Your task to perform on an android device: delete the emails in spam in the gmail app Image 0: 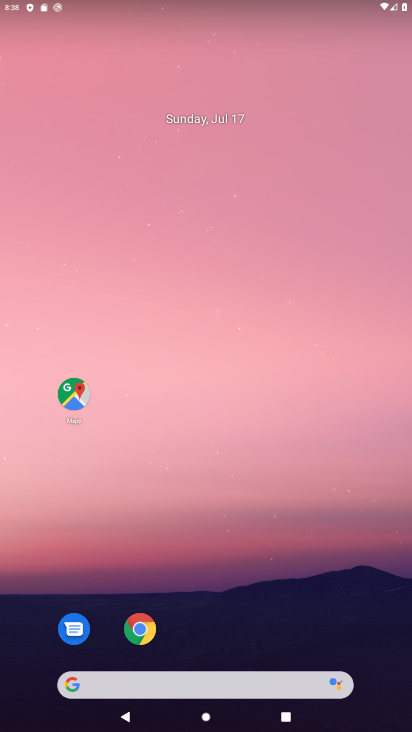
Step 0: drag from (230, 622) to (306, 0)
Your task to perform on an android device: delete the emails in spam in the gmail app Image 1: 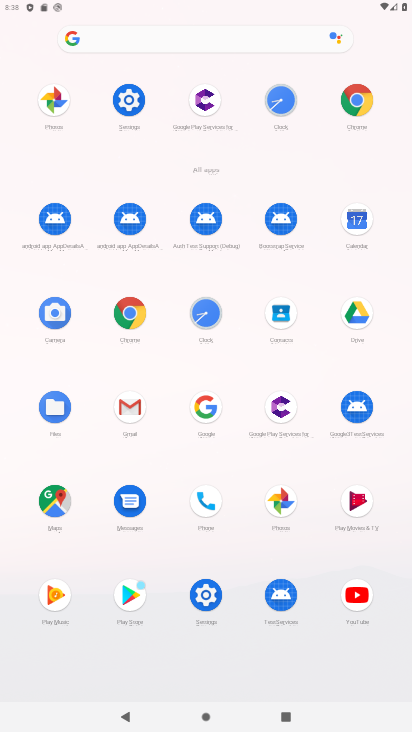
Step 1: click (133, 419)
Your task to perform on an android device: delete the emails in spam in the gmail app Image 2: 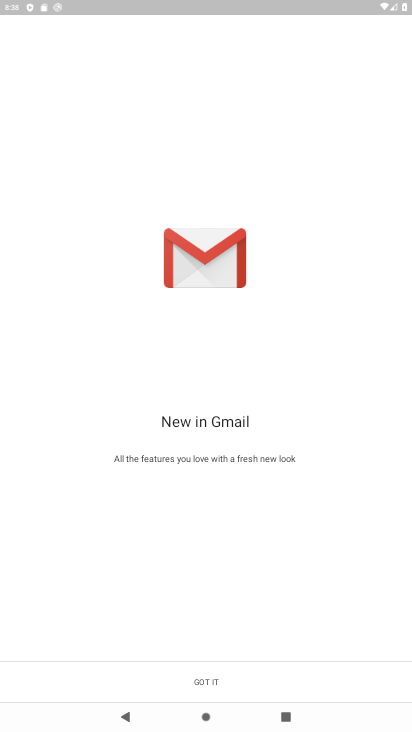
Step 2: click (156, 673)
Your task to perform on an android device: delete the emails in spam in the gmail app Image 3: 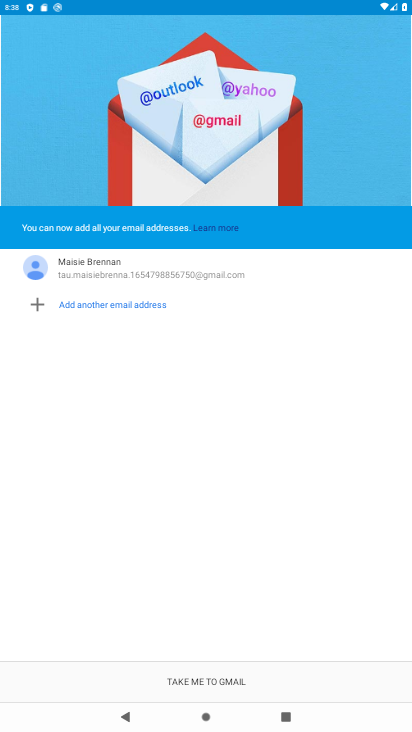
Step 3: click (205, 673)
Your task to perform on an android device: delete the emails in spam in the gmail app Image 4: 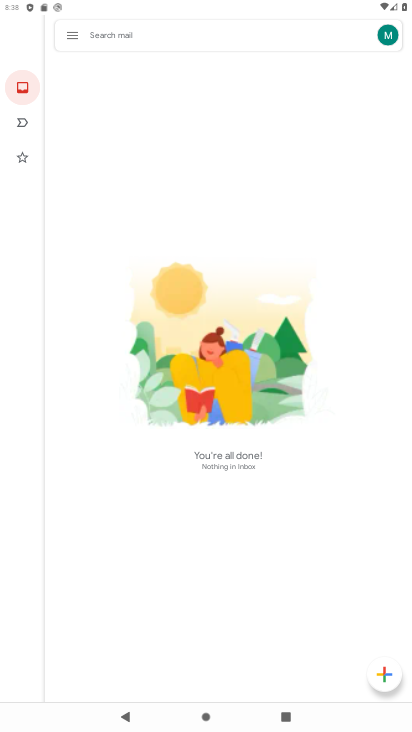
Step 4: click (77, 18)
Your task to perform on an android device: delete the emails in spam in the gmail app Image 5: 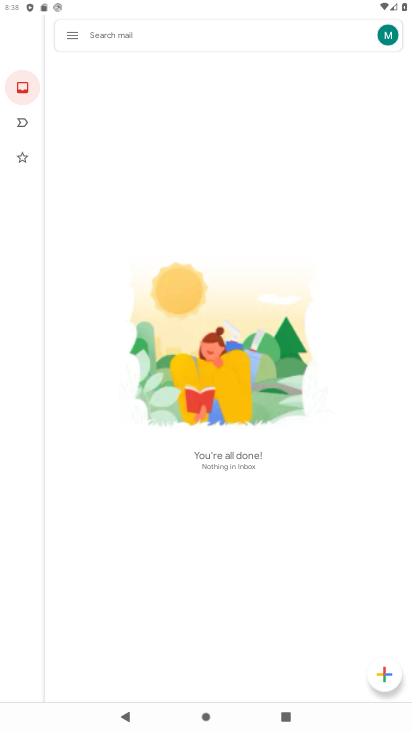
Step 5: click (72, 29)
Your task to perform on an android device: delete the emails in spam in the gmail app Image 6: 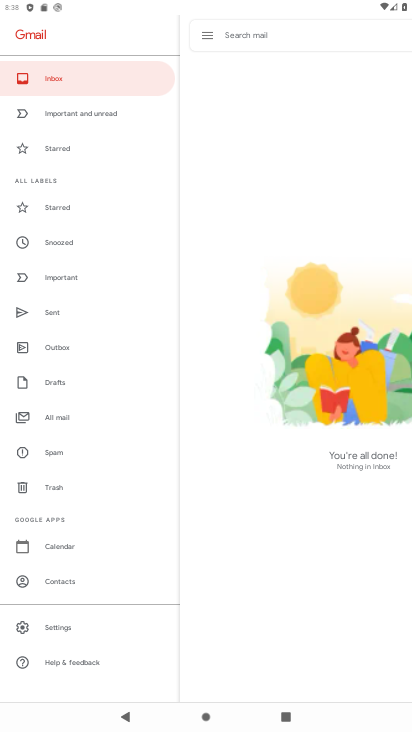
Step 6: click (86, 441)
Your task to perform on an android device: delete the emails in spam in the gmail app Image 7: 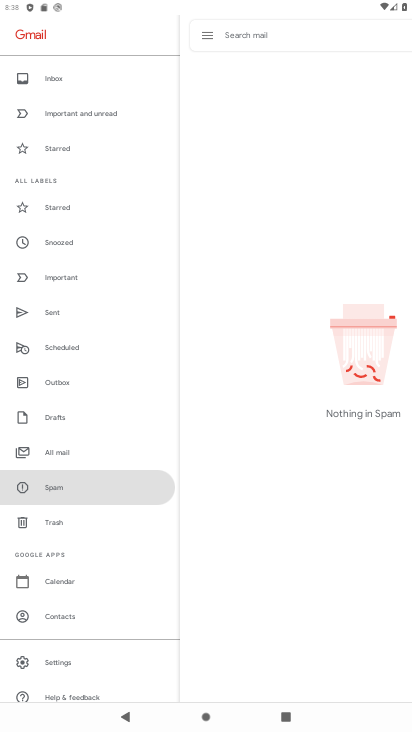
Step 7: task complete